Your task to perform on an android device: turn pop-ups on in chrome Image 0: 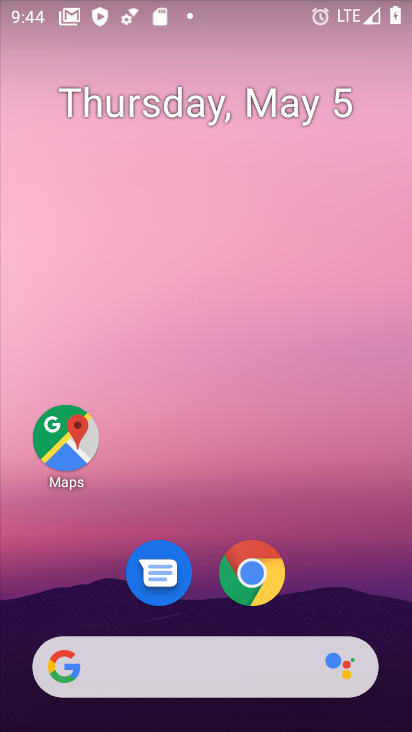
Step 0: click (247, 582)
Your task to perform on an android device: turn pop-ups on in chrome Image 1: 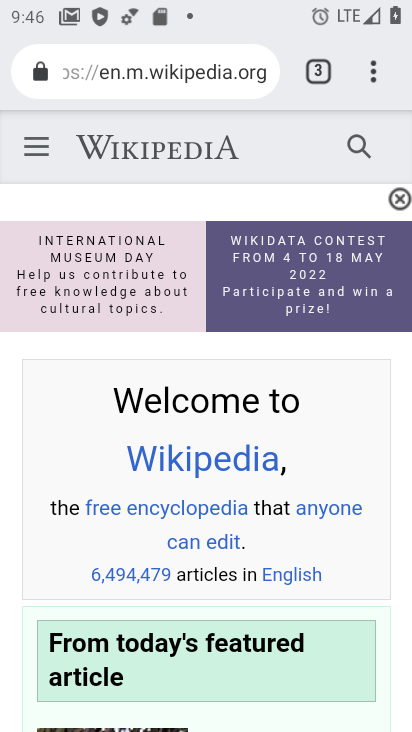
Step 1: drag from (374, 75) to (109, 556)
Your task to perform on an android device: turn pop-ups on in chrome Image 2: 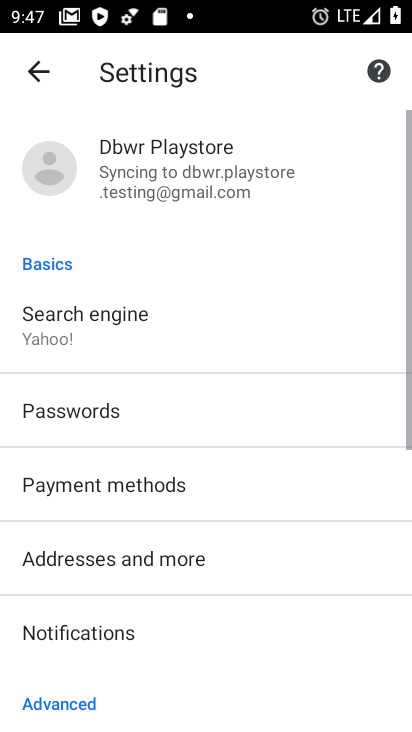
Step 2: drag from (160, 604) to (273, 100)
Your task to perform on an android device: turn pop-ups on in chrome Image 3: 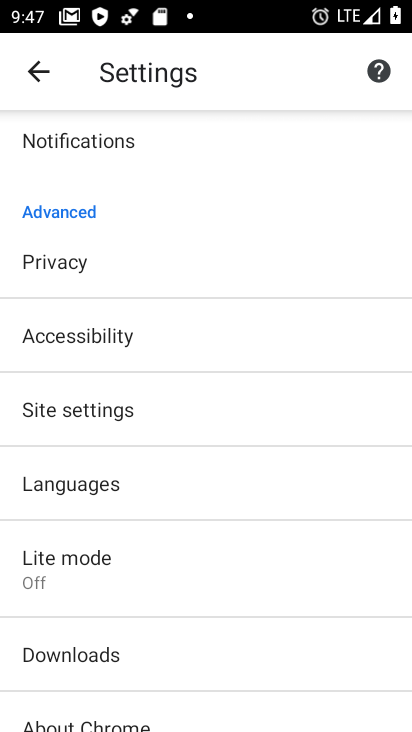
Step 3: click (73, 419)
Your task to perform on an android device: turn pop-ups on in chrome Image 4: 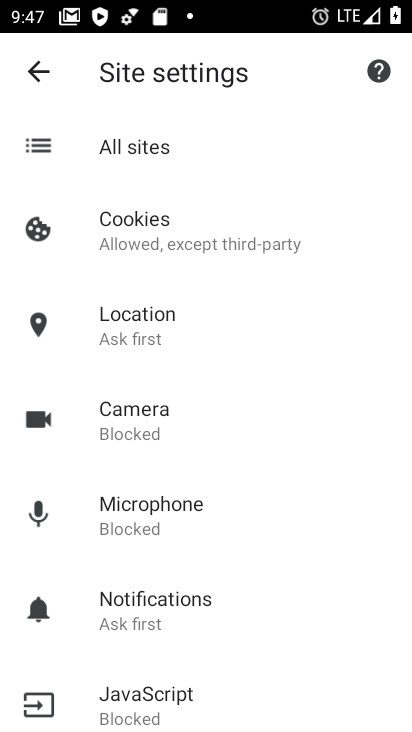
Step 4: drag from (165, 670) to (267, 201)
Your task to perform on an android device: turn pop-ups on in chrome Image 5: 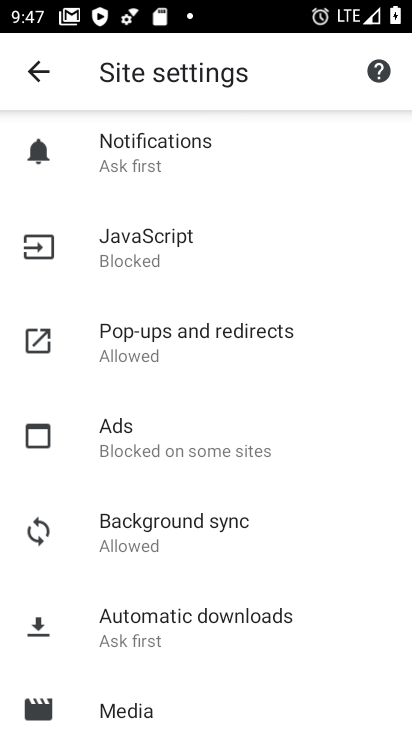
Step 5: click (131, 343)
Your task to perform on an android device: turn pop-ups on in chrome Image 6: 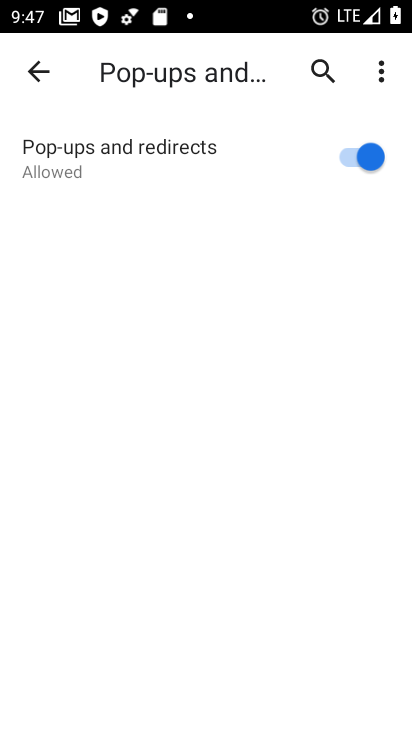
Step 6: task complete